Your task to perform on an android device: toggle notification dots Image 0: 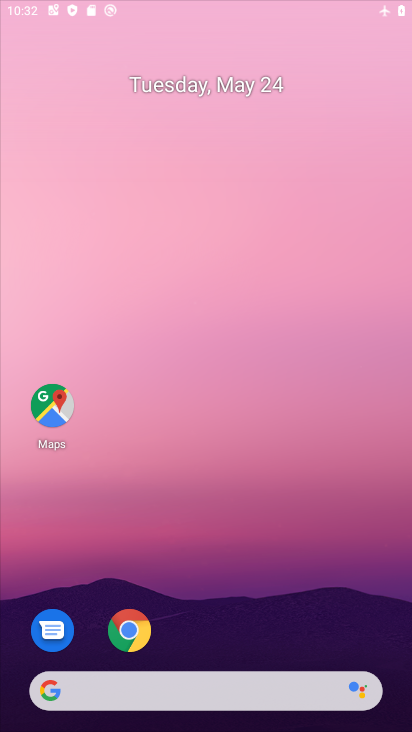
Step 0: press home button
Your task to perform on an android device: toggle notification dots Image 1: 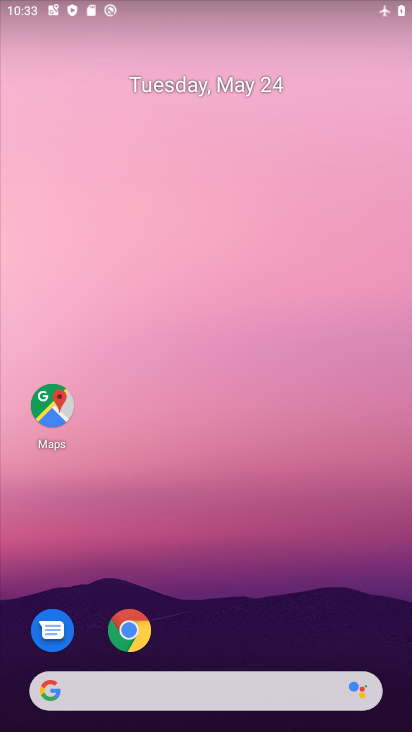
Step 1: drag from (244, 390) to (283, 12)
Your task to perform on an android device: toggle notification dots Image 2: 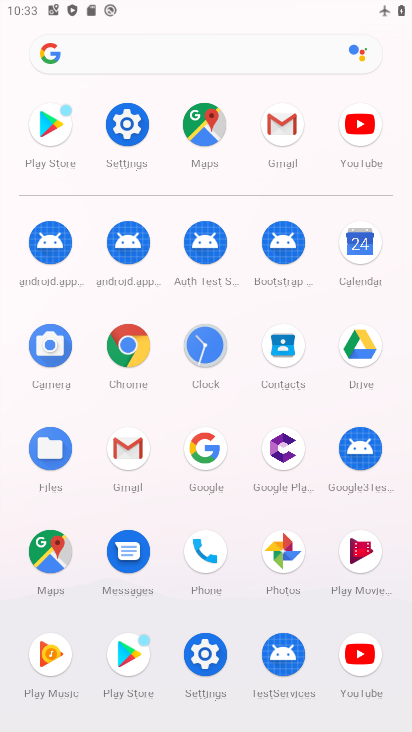
Step 2: click (121, 117)
Your task to perform on an android device: toggle notification dots Image 3: 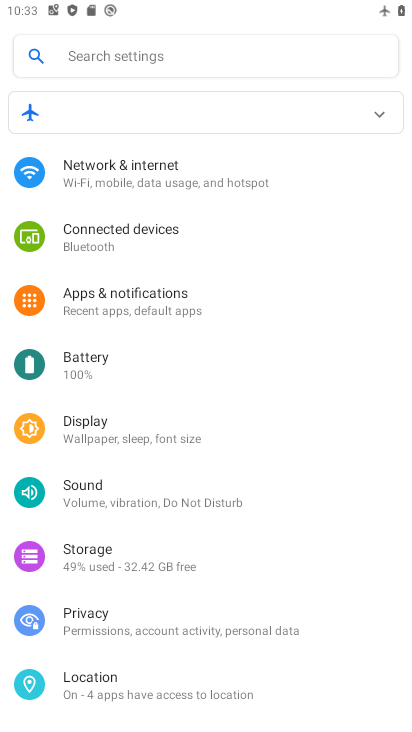
Step 3: click (215, 298)
Your task to perform on an android device: toggle notification dots Image 4: 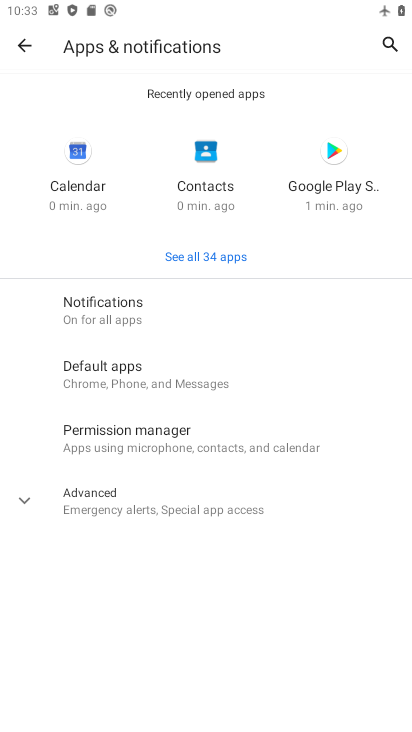
Step 4: click (153, 306)
Your task to perform on an android device: toggle notification dots Image 5: 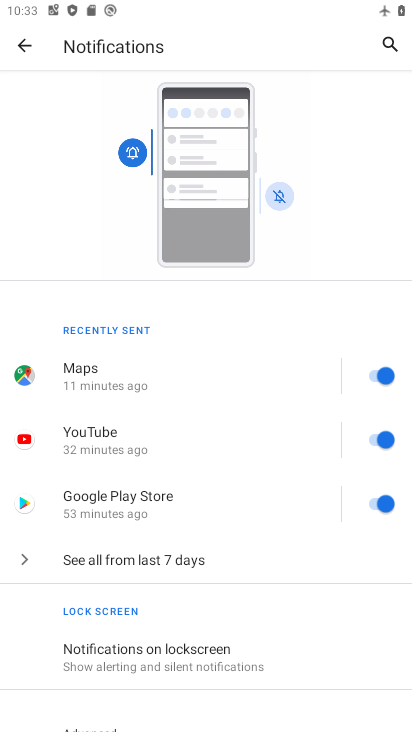
Step 5: drag from (218, 682) to (227, 188)
Your task to perform on an android device: toggle notification dots Image 6: 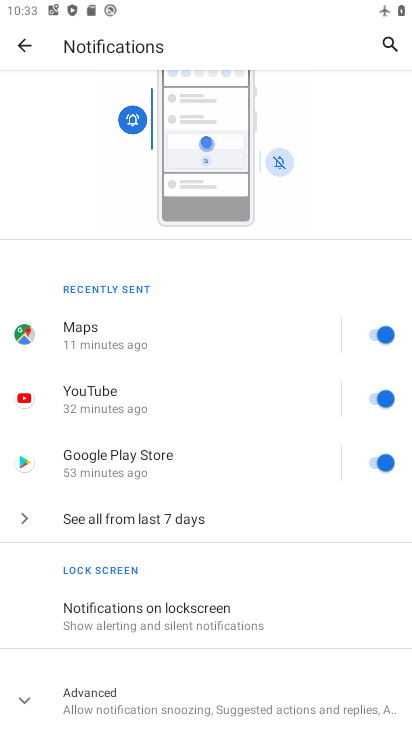
Step 6: click (76, 701)
Your task to perform on an android device: toggle notification dots Image 7: 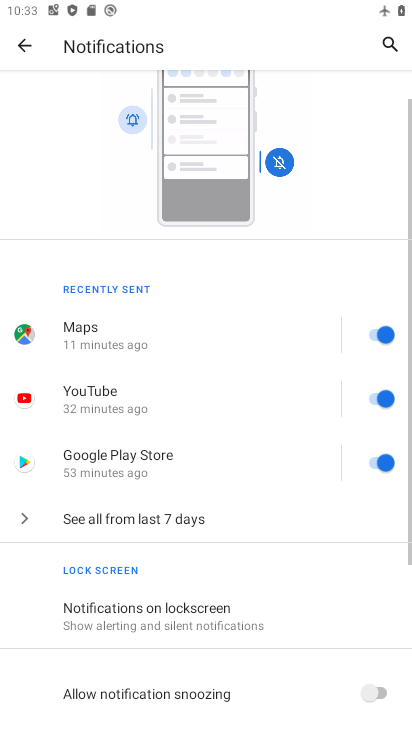
Step 7: drag from (152, 678) to (186, 178)
Your task to perform on an android device: toggle notification dots Image 8: 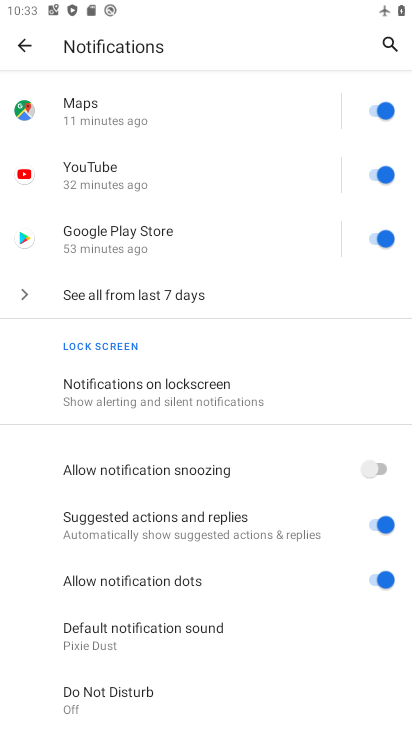
Step 8: click (376, 574)
Your task to perform on an android device: toggle notification dots Image 9: 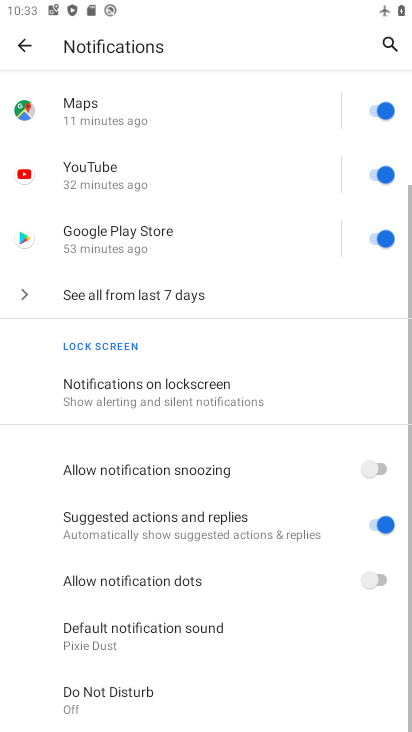
Step 9: task complete